Your task to perform on an android device: Play the last video I watched on Youtube Image 0: 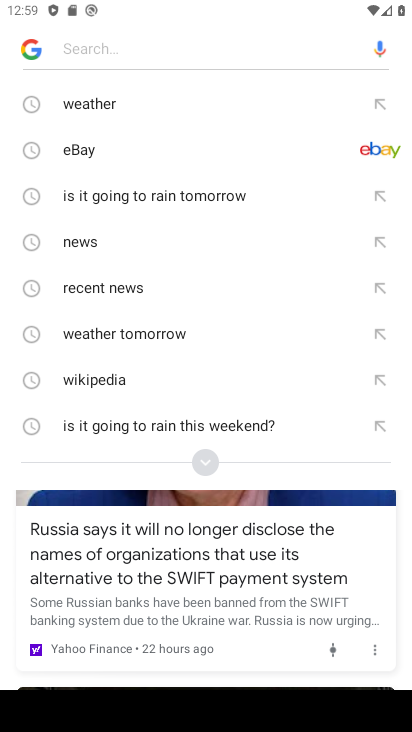
Step 0: press home button
Your task to perform on an android device: Play the last video I watched on Youtube Image 1: 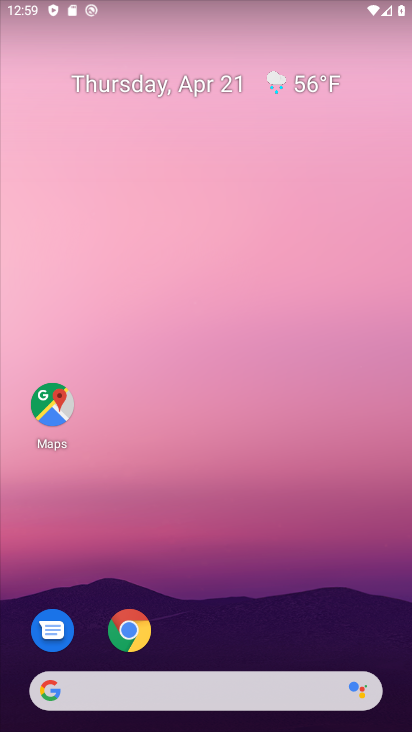
Step 1: drag from (141, 679) to (235, 130)
Your task to perform on an android device: Play the last video I watched on Youtube Image 2: 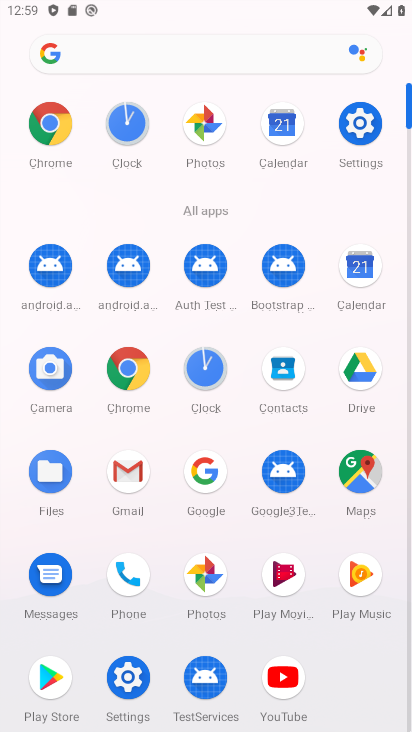
Step 2: click (285, 682)
Your task to perform on an android device: Play the last video I watched on Youtube Image 3: 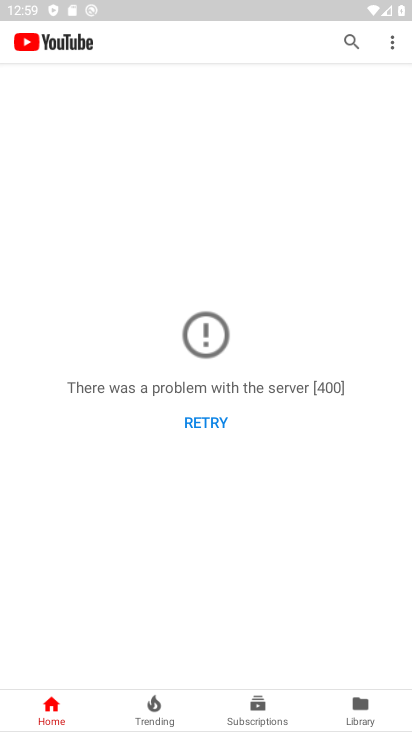
Step 3: task complete